Your task to perform on an android device: turn off notifications settings in the gmail app Image 0: 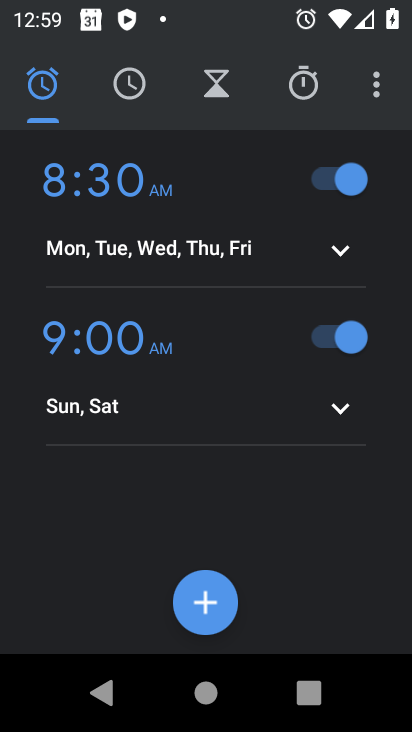
Step 0: press back button
Your task to perform on an android device: turn off notifications settings in the gmail app Image 1: 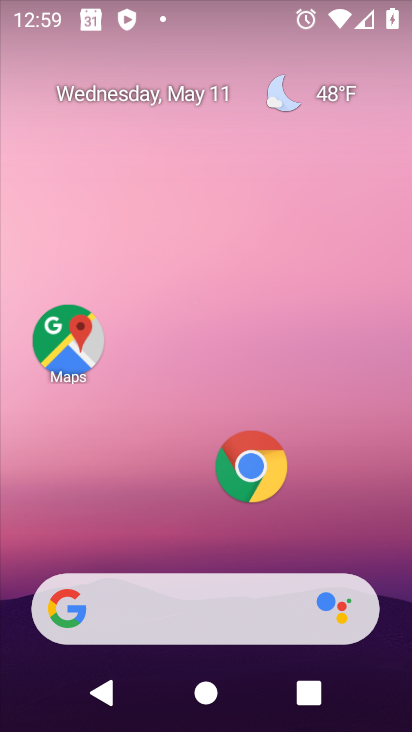
Step 1: drag from (181, 517) to (269, 0)
Your task to perform on an android device: turn off notifications settings in the gmail app Image 2: 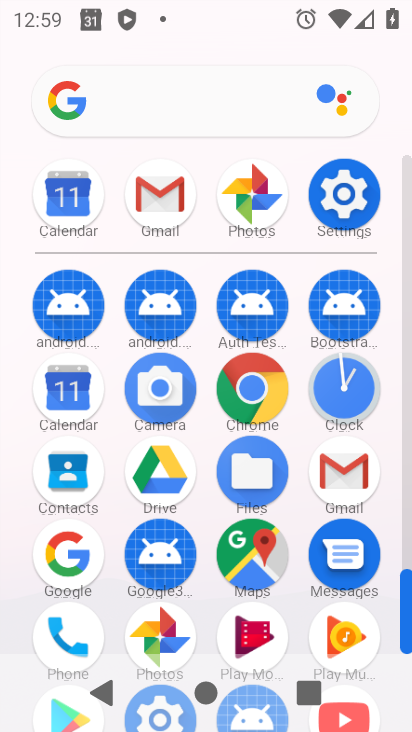
Step 2: click (162, 196)
Your task to perform on an android device: turn off notifications settings in the gmail app Image 3: 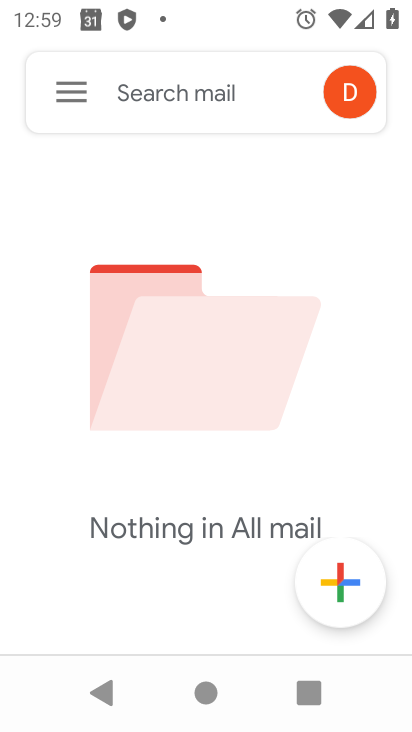
Step 3: click (72, 100)
Your task to perform on an android device: turn off notifications settings in the gmail app Image 4: 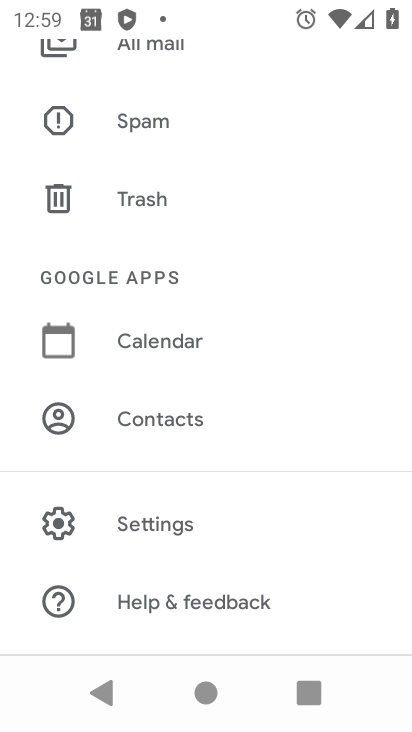
Step 4: click (126, 565)
Your task to perform on an android device: turn off notifications settings in the gmail app Image 5: 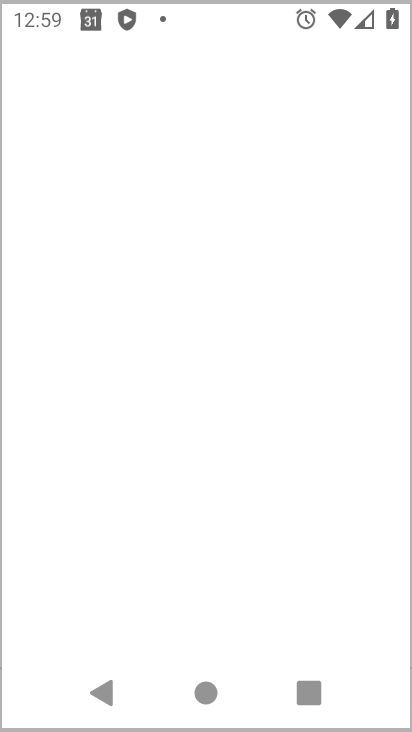
Step 5: click (59, 98)
Your task to perform on an android device: turn off notifications settings in the gmail app Image 6: 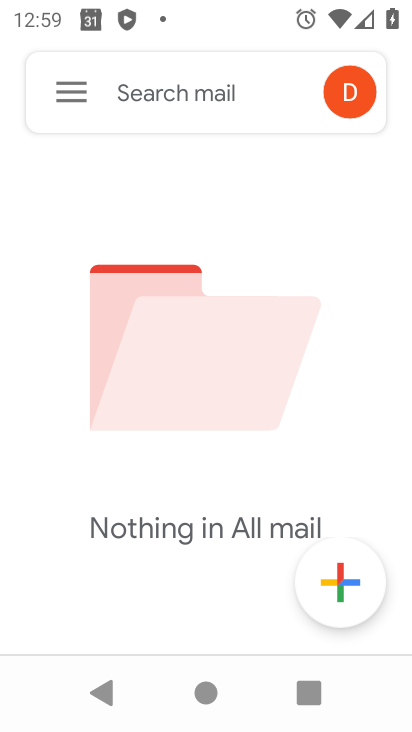
Step 6: press back button
Your task to perform on an android device: turn off notifications settings in the gmail app Image 7: 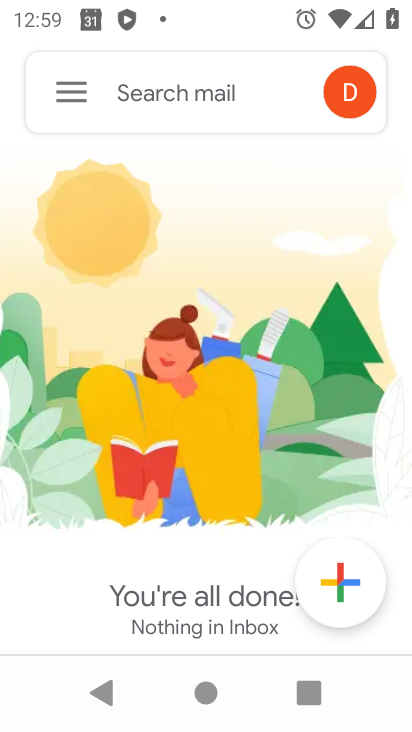
Step 7: click (75, 79)
Your task to perform on an android device: turn off notifications settings in the gmail app Image 8: 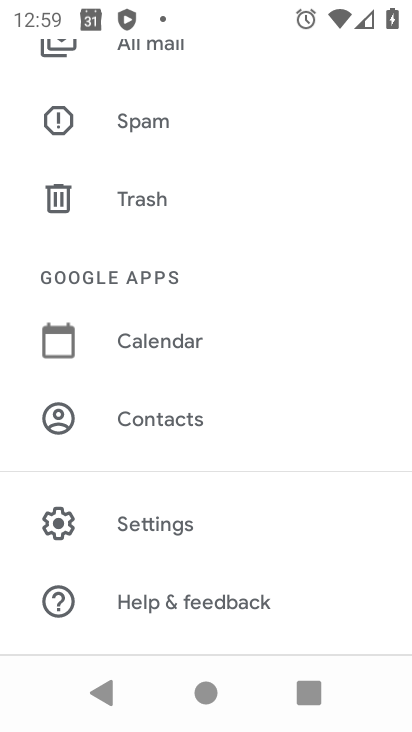
Step 8: click (201, 530)
Your task to perform on an android device: turn off notifications settings in the gmail app Image 9: 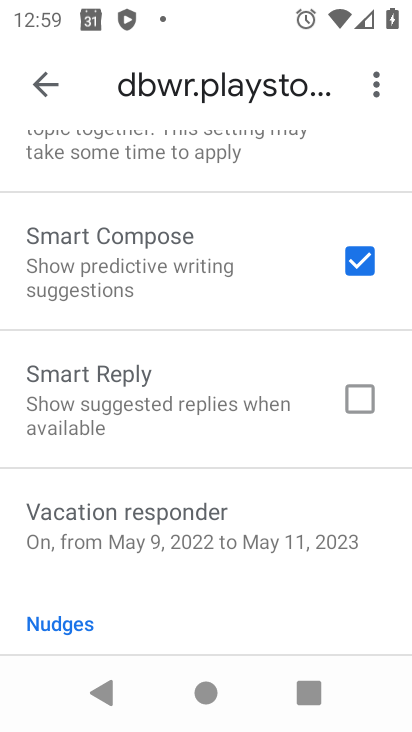
Step 9: drag from (184, 223) to (199, 543)
Your task to perform on an android device: turn off notifications settings in the gmail app Image 10: 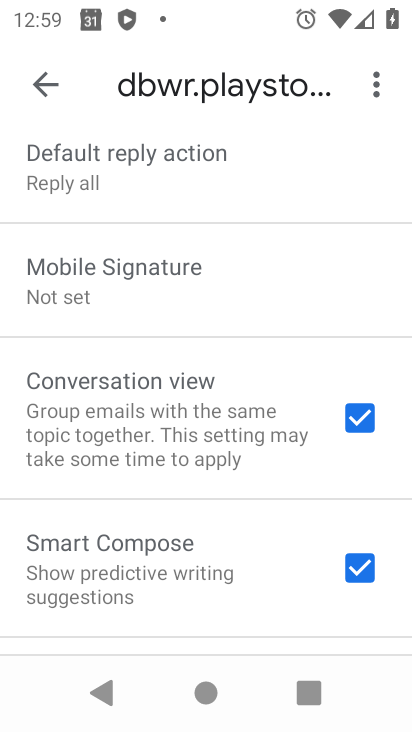
Step 10: drag from (171, 241) to (158, 676)
Your task to perform on an android device: turn off notifications settings in the gmail app Image 11: 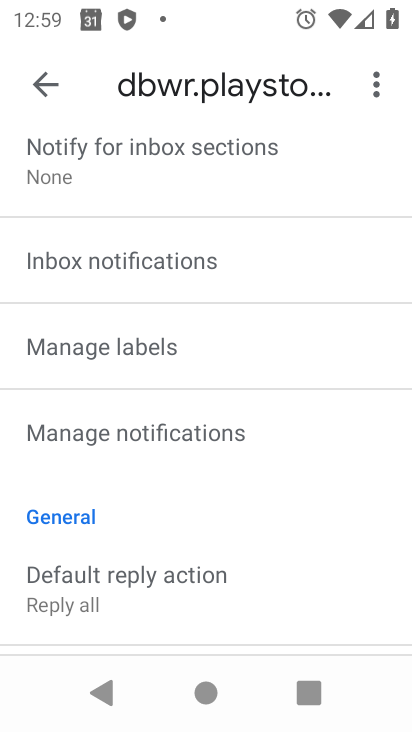
Step 11: click (128, 443)
Your task to perform on an android device: turn off notifications settings in the gmail app Image 12: 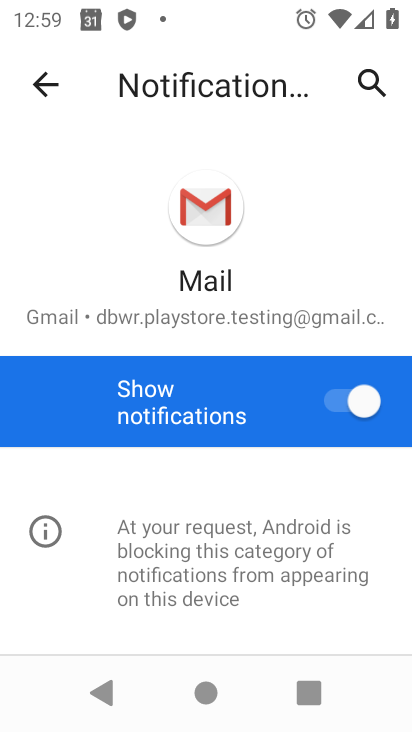
Step 12: click (342, 395)
Your task to perform on an android device: turn off notifications settings in the gmail app Image 13: 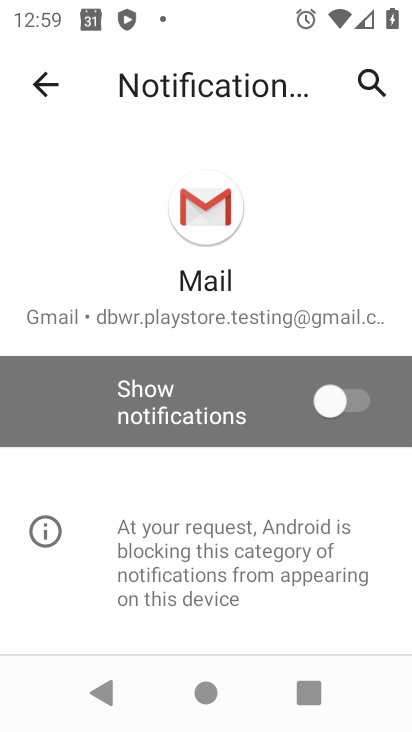
Step 13: task complete